Your task to perform on an android device: find photos in the google photos app Image 0: 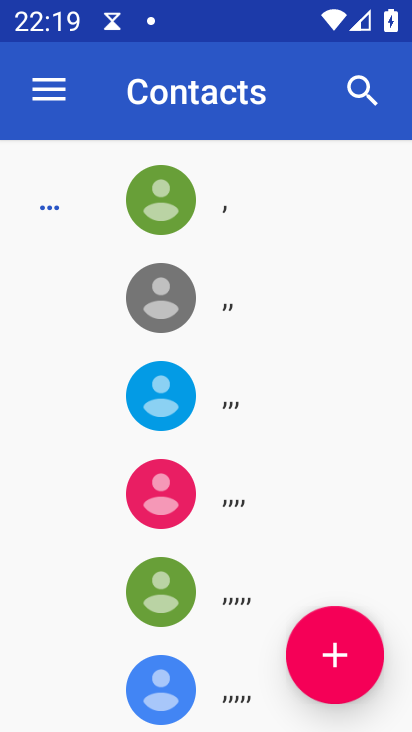
Step 0: press back button
Your task to perform on an android device: find photos in the google photos app Image 1: 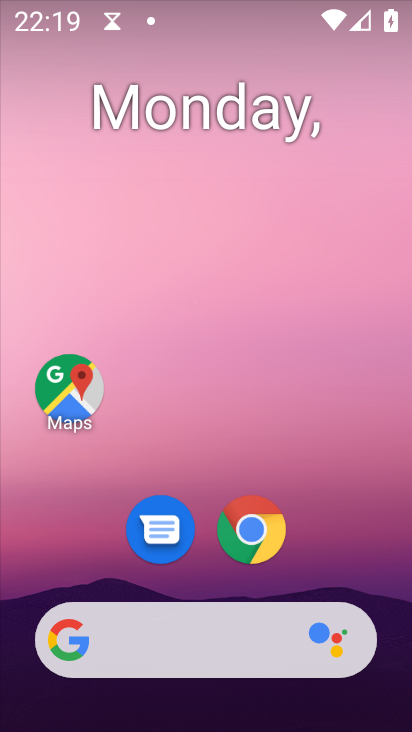
Step 1: drag from (328, 558) to (241, 62)
Your task to perform on an android device: find photos in the google photos app Image 2: 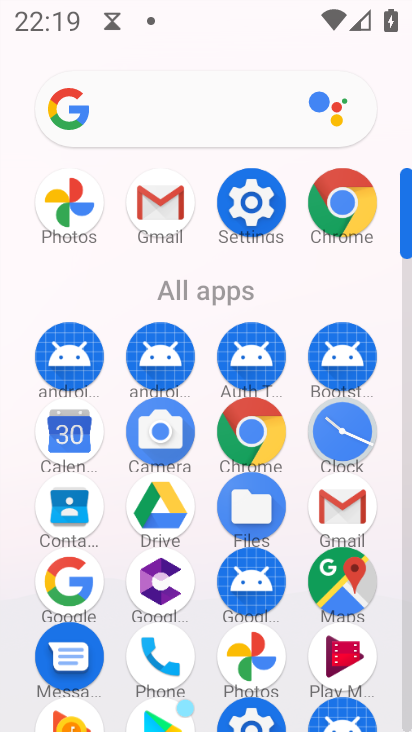
Step 2: click (71, 203)
Your task to perform on an android device: find photos in the google photos app Image 3: 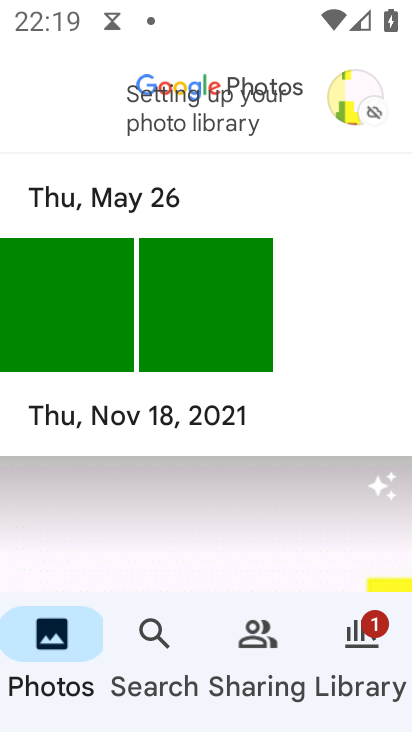
Step 3: click (93, 288)
Your task to perform on an android device: find photos in the google photos app Image 4: 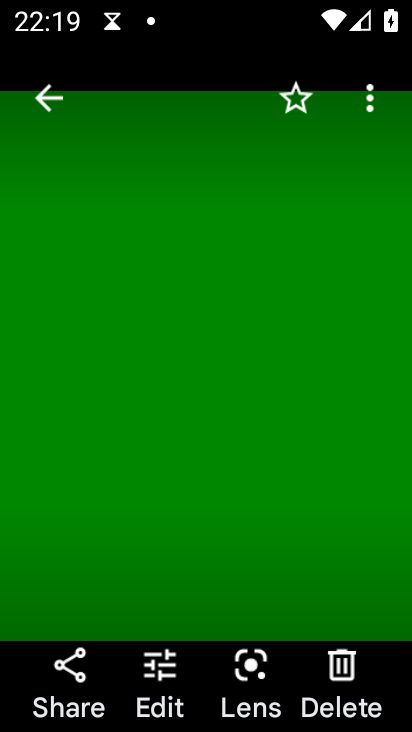
Step 4: task complete